Your task to perform on an android device: Open Amazon Image 0: 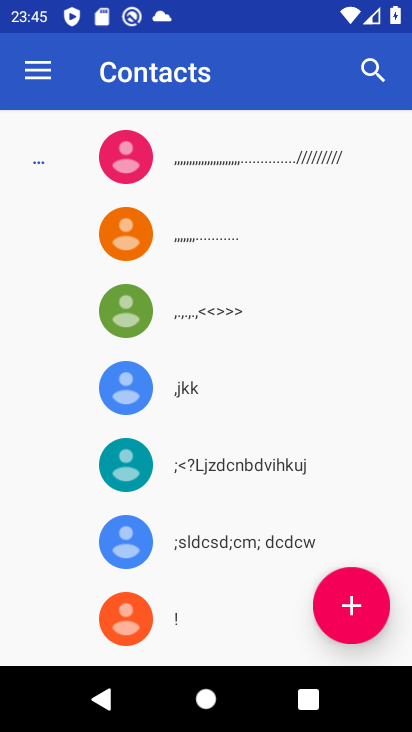
Step 0: press home button
Your task to perform on an android device: Open Amazon Image 1: 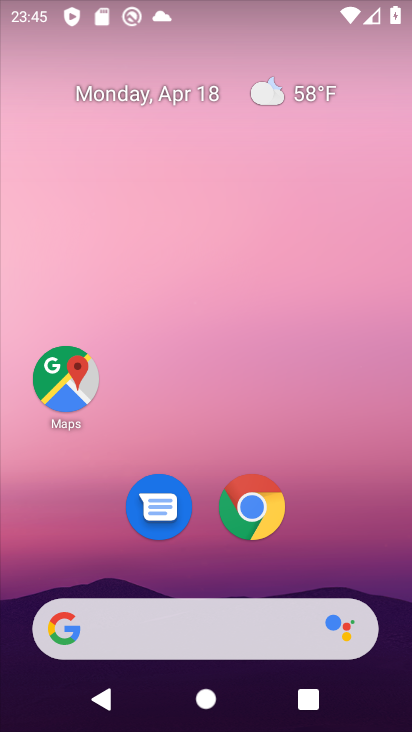
Step 1: click (251, 505)
Your task to perform on an android device: Open Amazon Image 2: 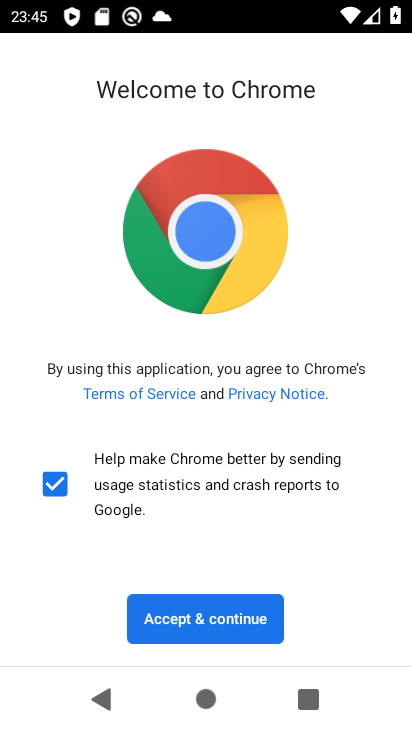
Step 2: click (203, 611)
Your task to perform on an android device: Open Amazon Image 3: 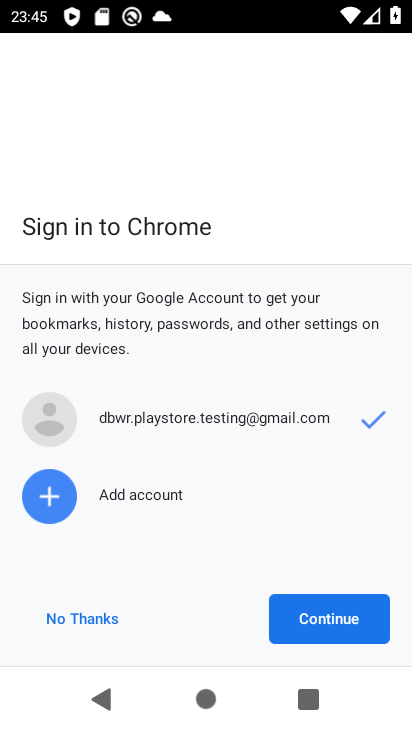
Step 3: click (328, 614)
Your task to perform on an android device: Open Amazon Image 4: 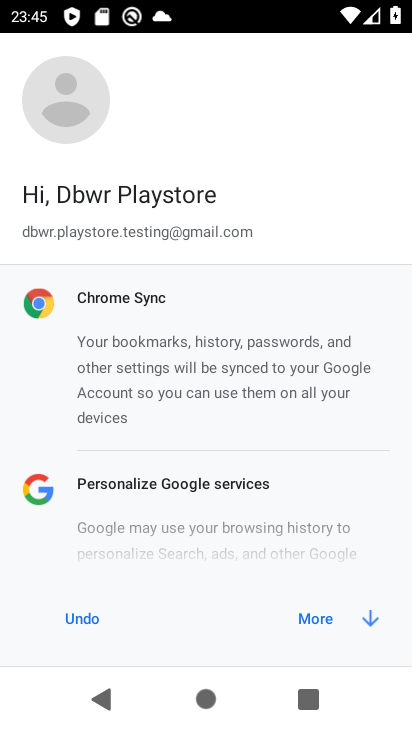
Step 4: click (321, 620)
Your task to perform on an android device: Open Amazon Image 5: 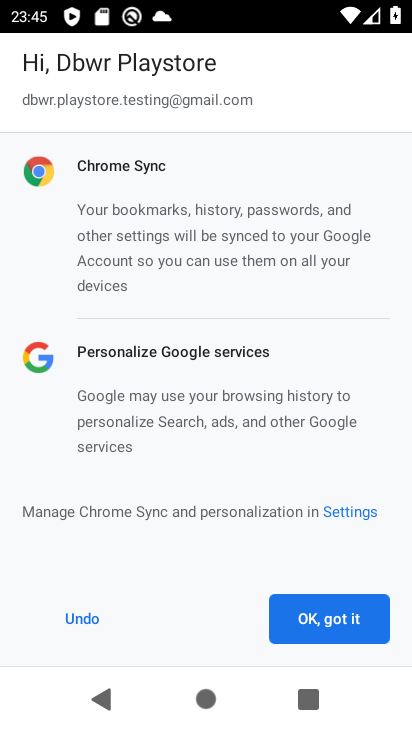
Step 5: click (316, 612)
Your task to perform on an android device: Open Amazon Image 6: 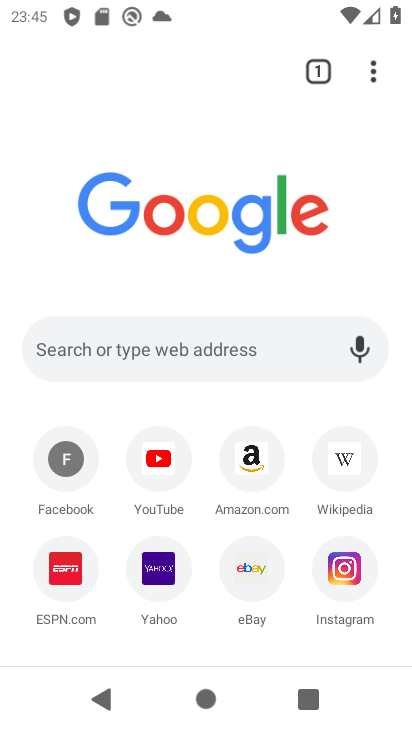
Step 6: click (249, 459)
Your task to perform on an android device: Open Amazon Image 7: 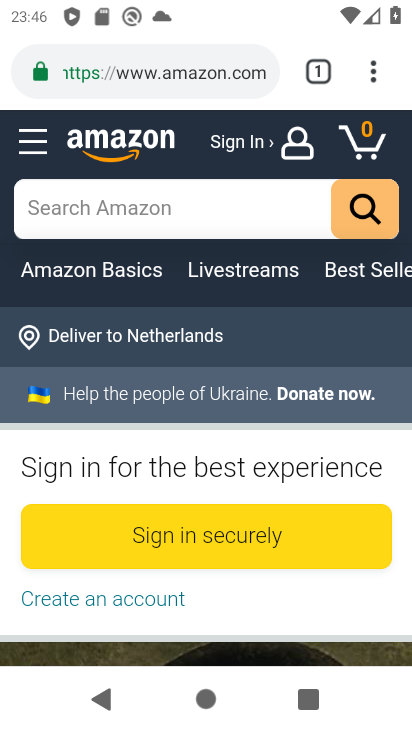
Step 7: task complete